Your task to perform on an android device: Go to Google Image 0: 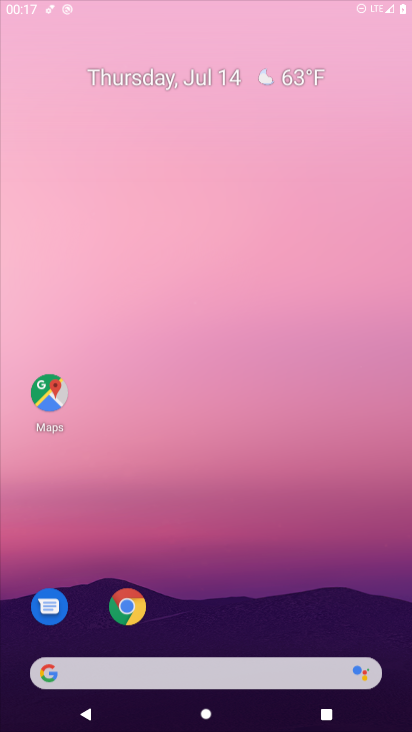
Step 0: press home button
Your task to perform on an android device: Go to Google Image 1: 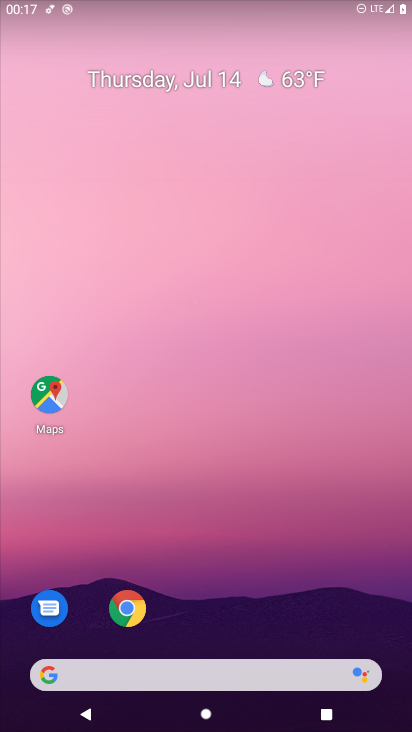
Step 1: click (45, 678)
Your task to perform on an android device: Go to Google Image 2: 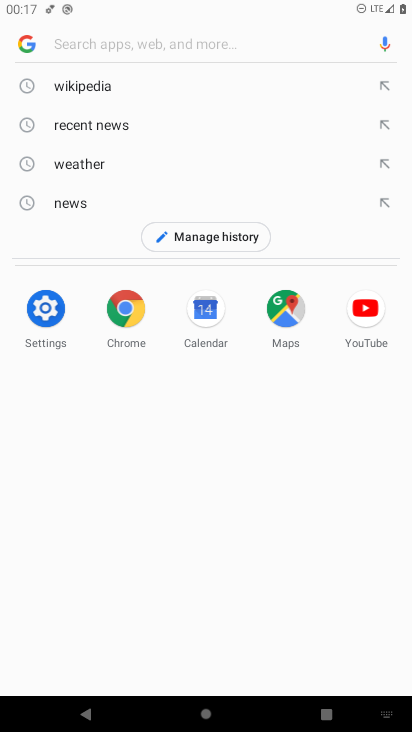
Step 2: task complete